Your task to perform on an android device: Is it going to rain today? Image 0: 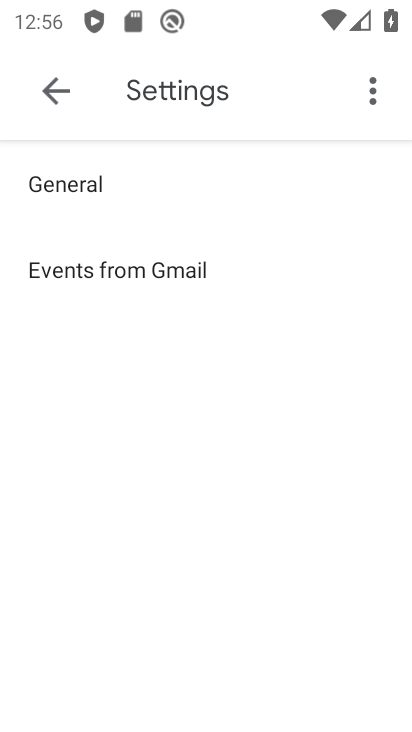
Step 0: press home button
Your task to perform on an android device: Is it going to rain today? Image 1: 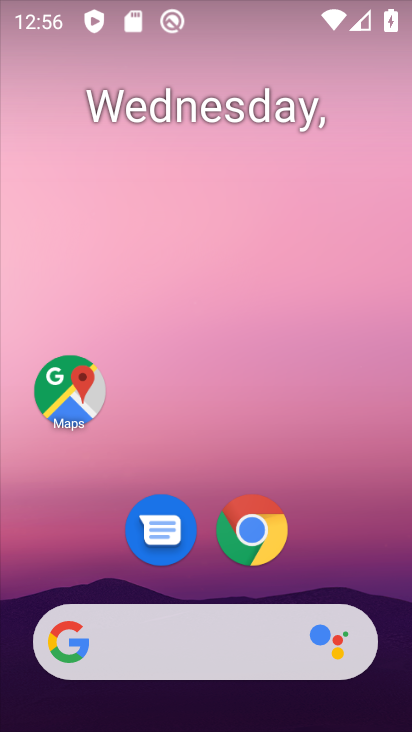
Step 1: drag from (332, 560) to (295, 197)
Your task to perform on an android device: Is it going to rain today? Image 2: 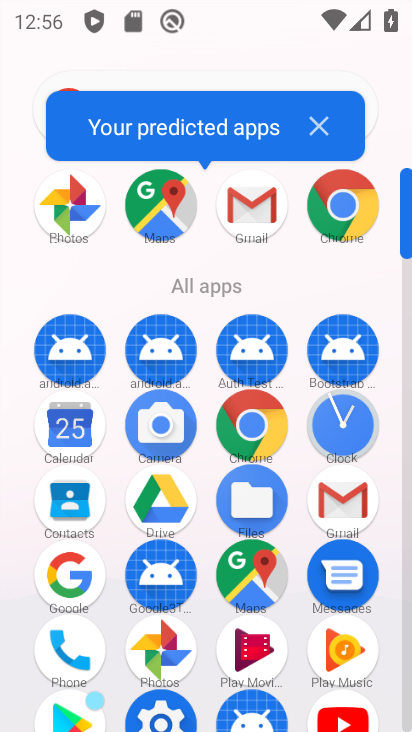
Step 2: click (64, 574)
Your task to perform on an android device: Is it going to rain today? Image 3: 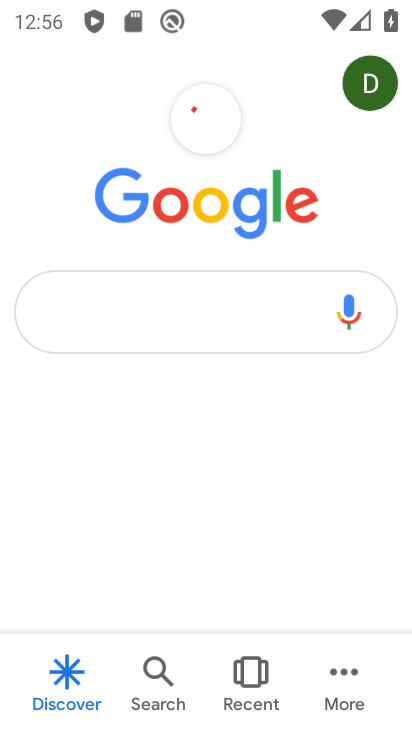
Step 3: click (153, 314)
Your task to perform on an android device: Is it going to rain today? Image 4: 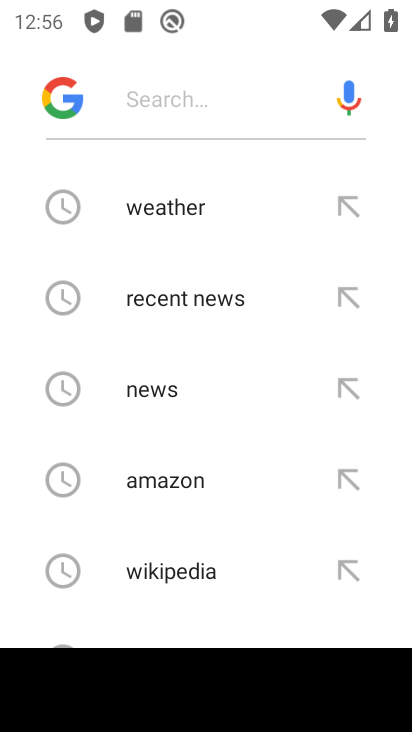
Step 4: click (175, 210)
Your task to perform on an android device: Is it going to rain today? Image 5: 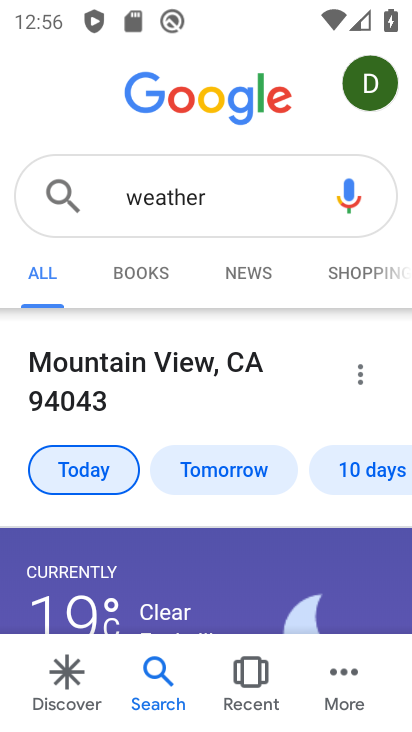
Step 5: task complete